Your task to perform on an android device: Open Amazon Image 0: 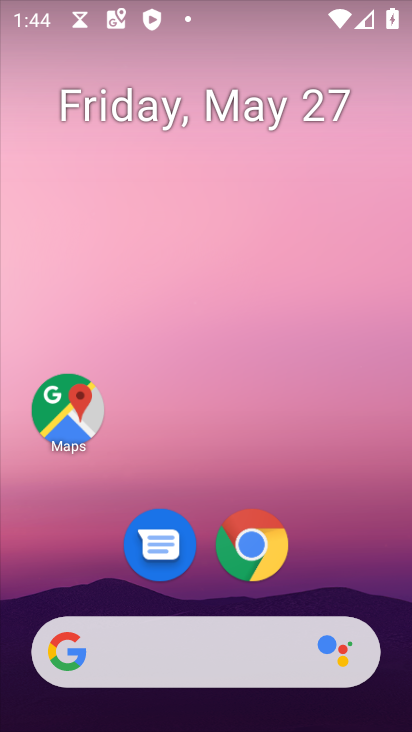
Step 0: click (248, 536)
Your task to perform on an android device: Open Amazon Image 1: 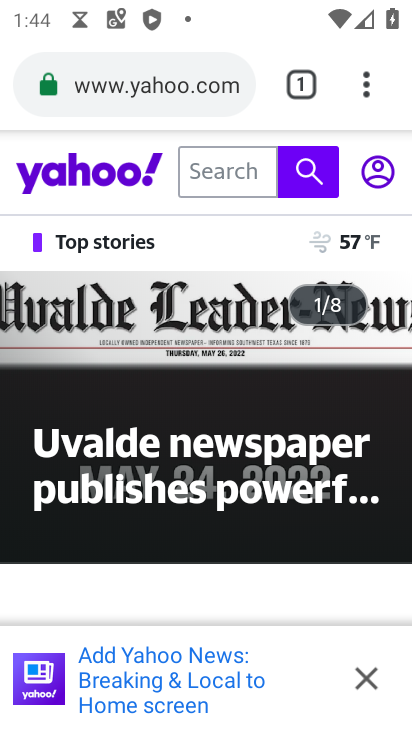
Step 1: click (297, 82)
Your task to perform on an android device: Open Amazon Image 2: 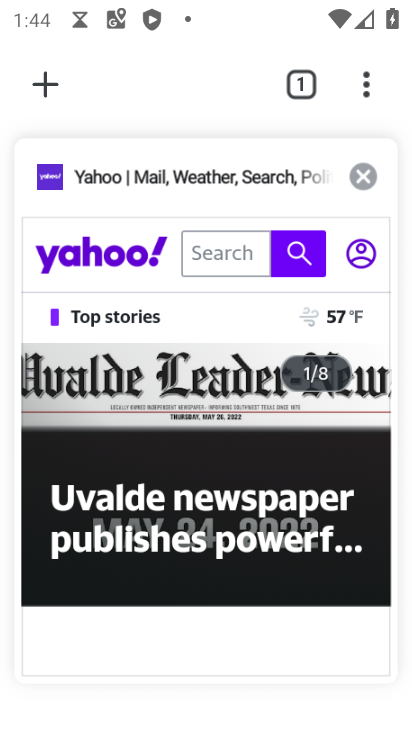
Step 2: click (34, 76)
Your task to perform on an android device: Open Amazon Image 3: 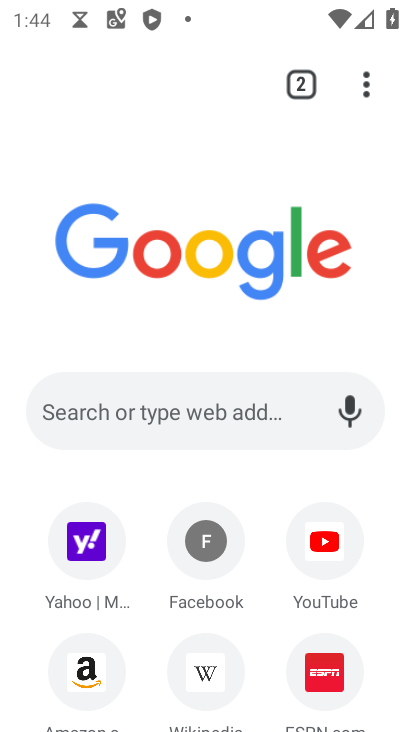
Step 3: click (82, 657)
Your task to perform on an android device: Open Amazon Image 4: 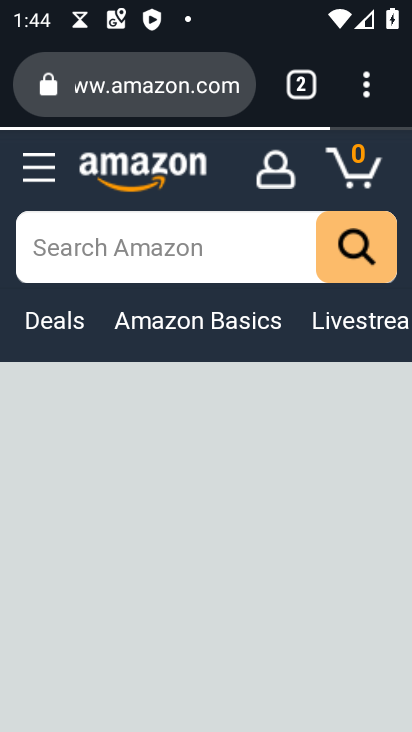
Step 4: task complete